Your task to perform on an android device: change the upload size in google photos Image 0: 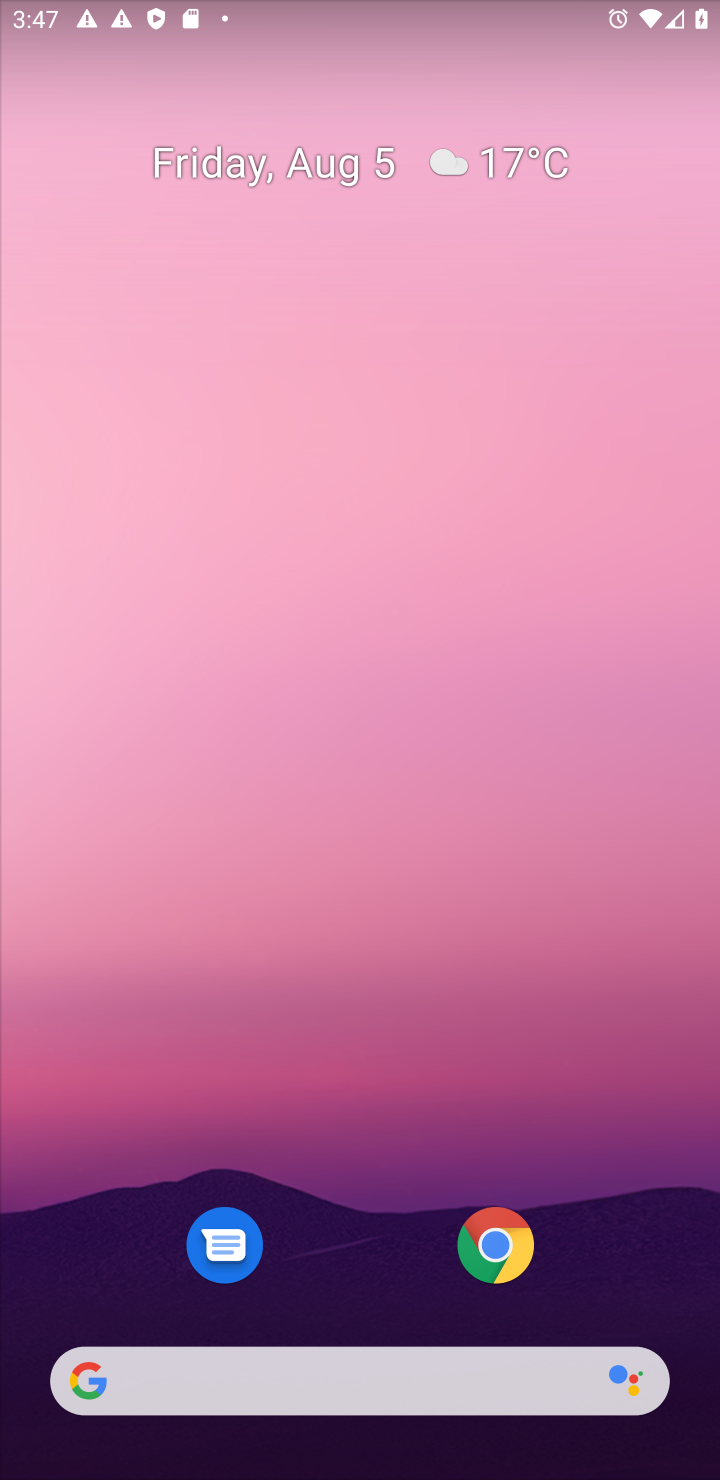
Step 0: drag from (40, 1447) to (423, 501)
Your task to perform on an android device: change the upload size in google photos Image 1: 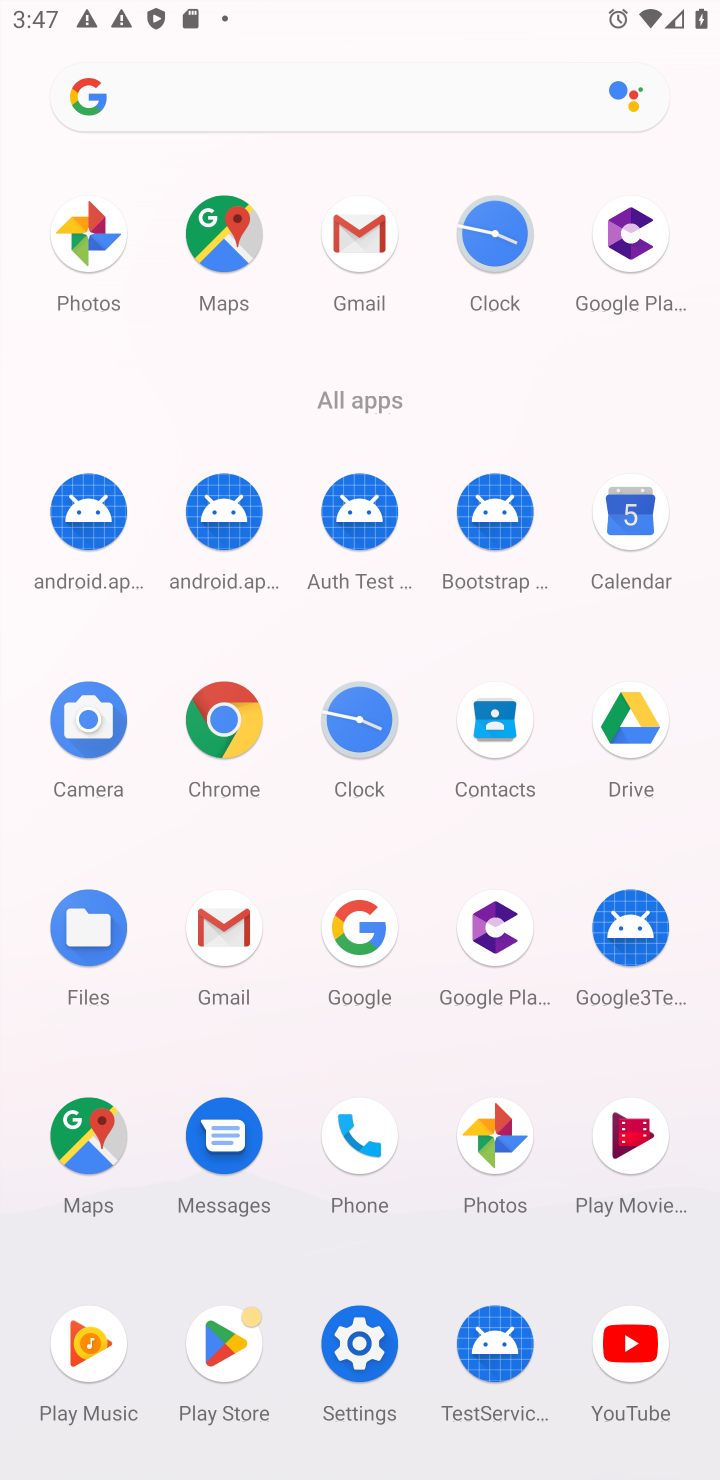
Step 1: click (98, 205)
Your task to perform on an android device: change the upload size in google photos Image 2: 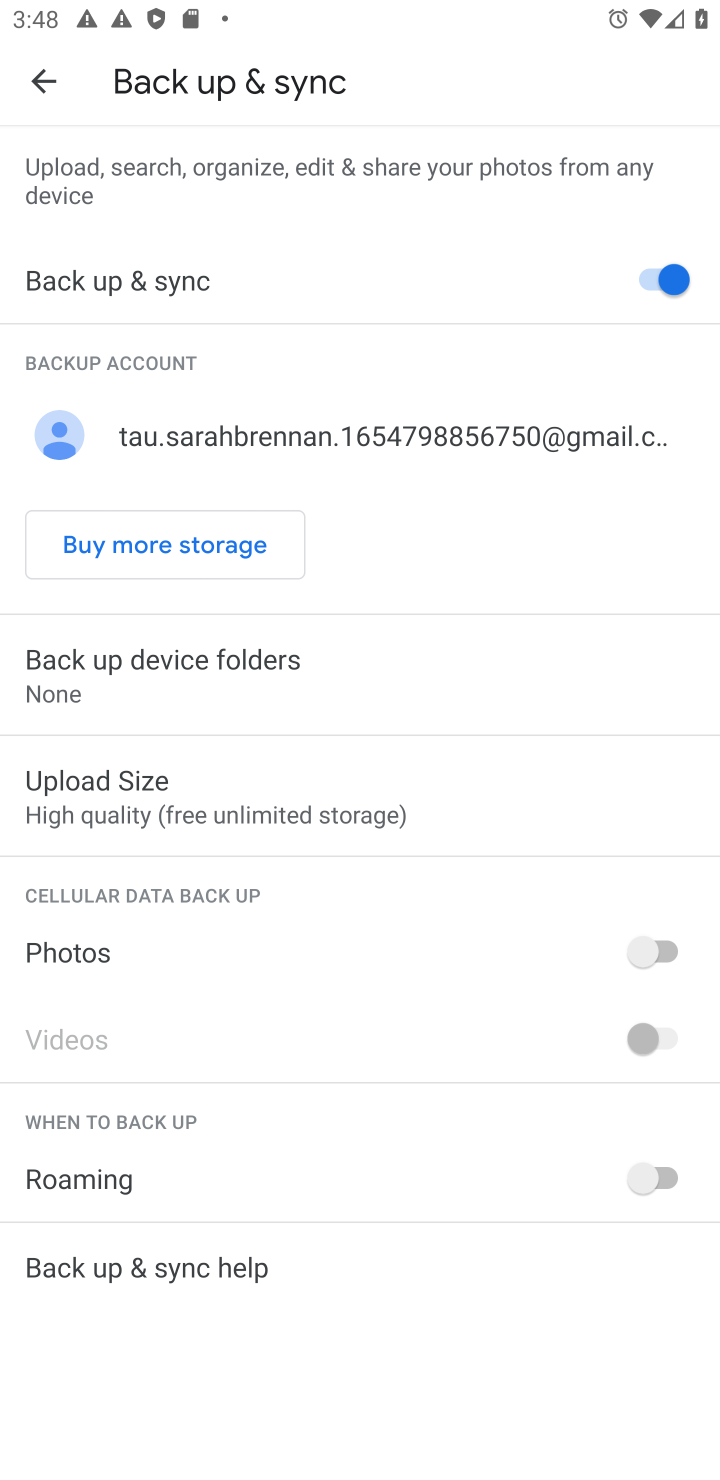
Step 2: click (161, 796)
Your task to perform on an android device: change the upload size in google photos Image 3: 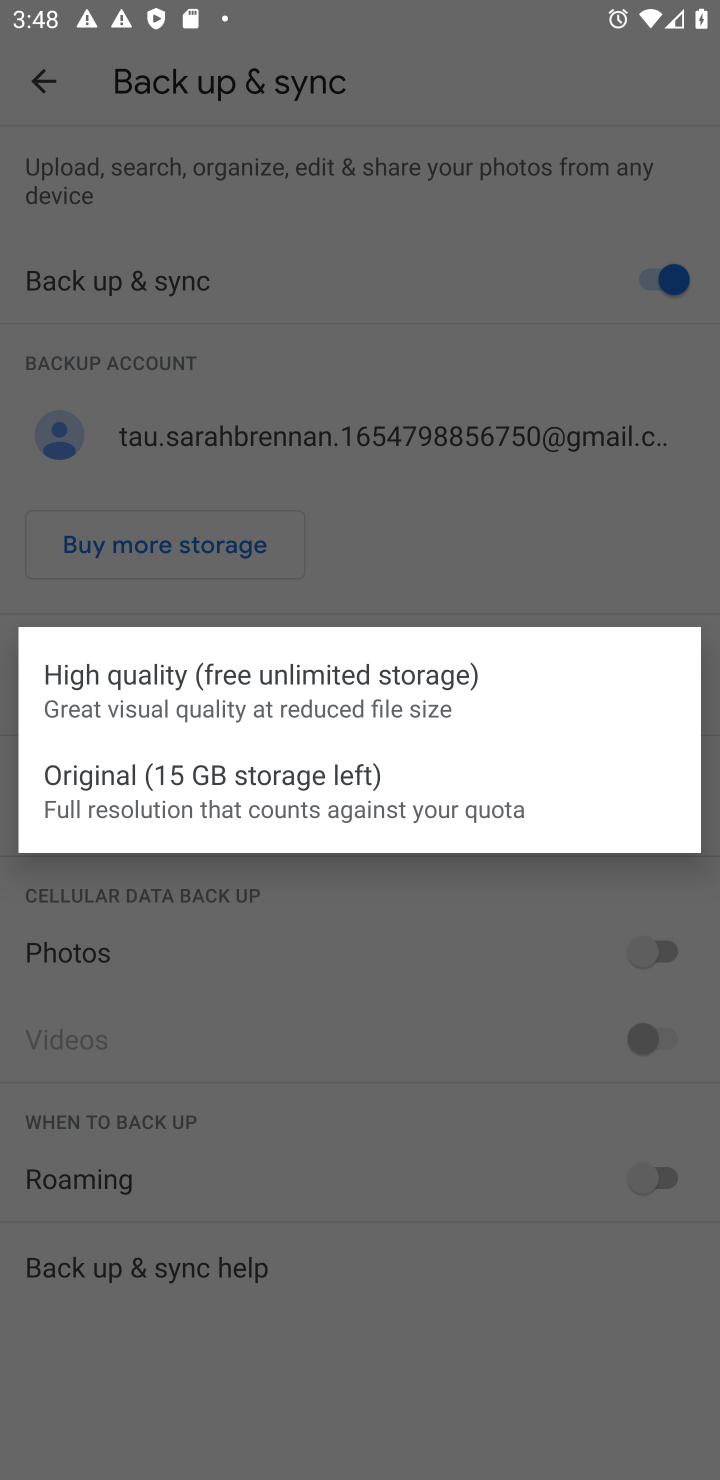
Step 3: click (161, 796)
Your task to perform on an android device: change the upload size in google photos Image 4: 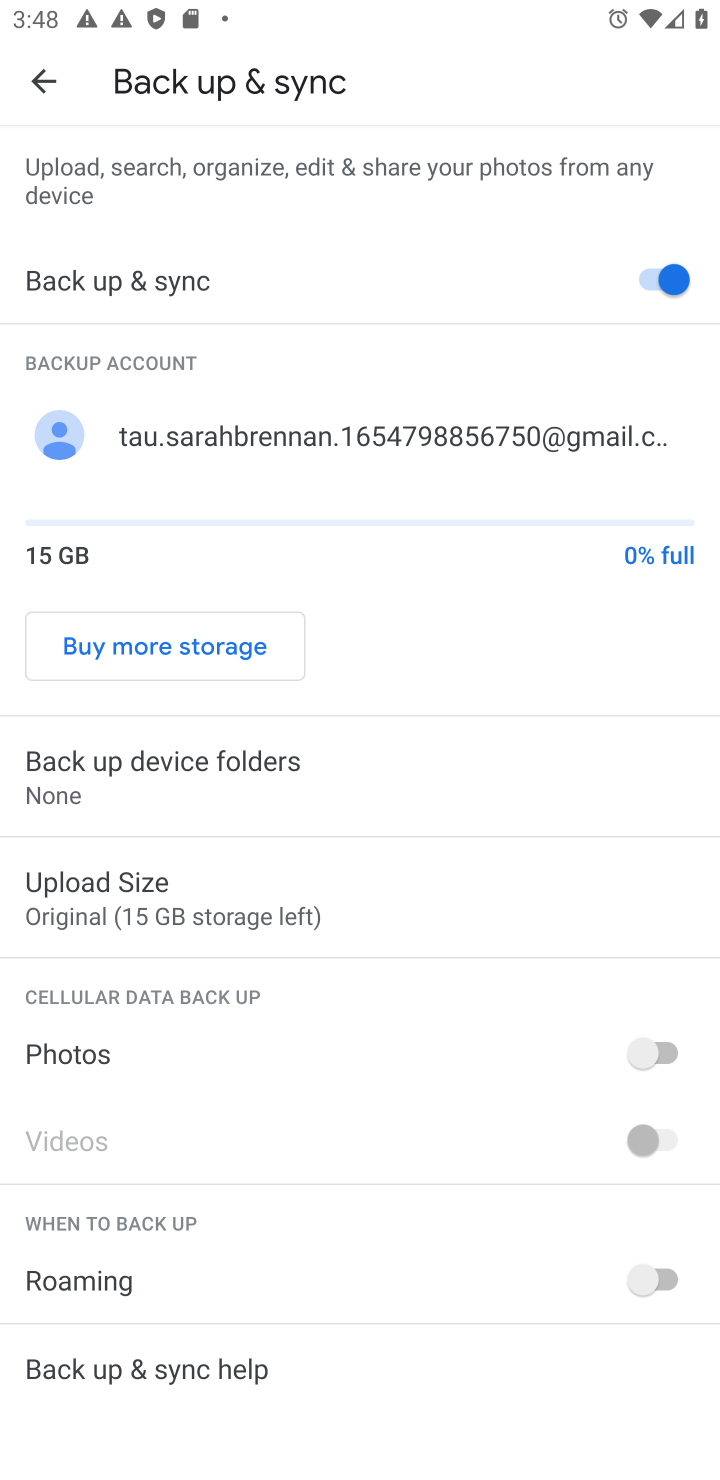
Step 4: task complete